Your task to perform on an android device: Open Google Maps Image 0: 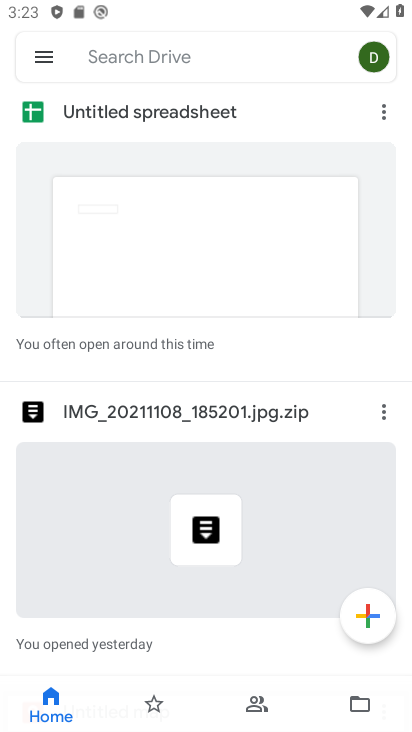
Step 0: press home button
Your task to perform on an android device: Open Google Maps Image 1: 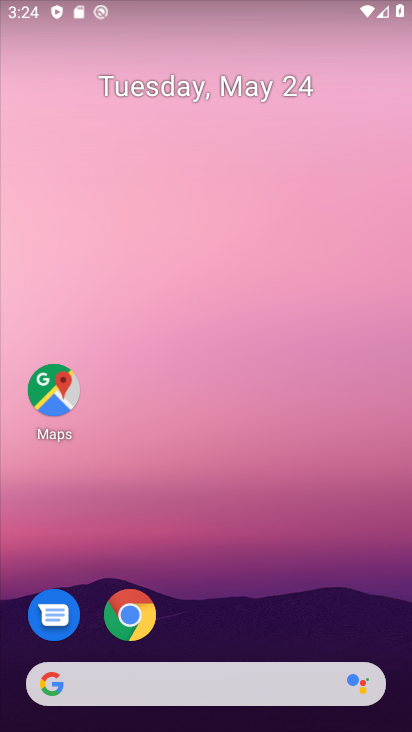
Step 1: drag from (194, 721) to (187, 117)
Your task to perform on an android device: Open Google Maps Image 2: 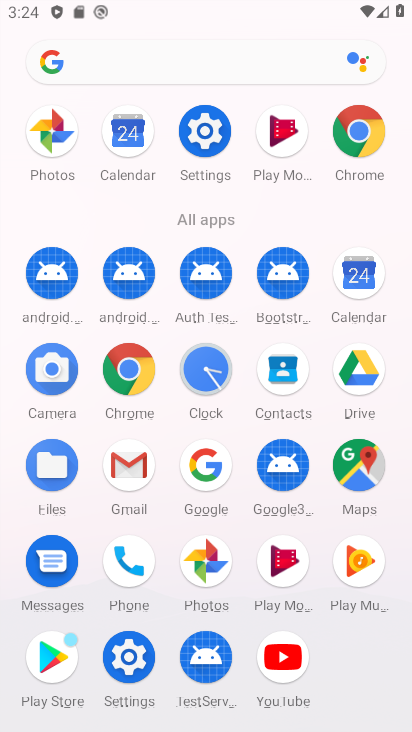
Step 2: click (354, 469)
Your task to perform on an android device: Open Google Maps Image 3: 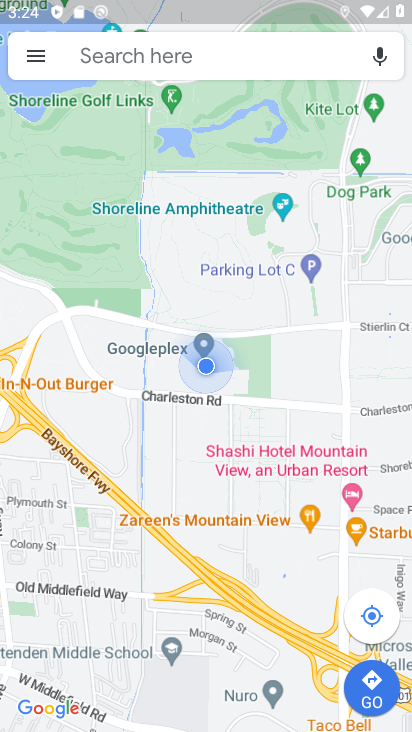
Step 3: task complete